Your task to perform on an android device: toggle wifi Image 0: 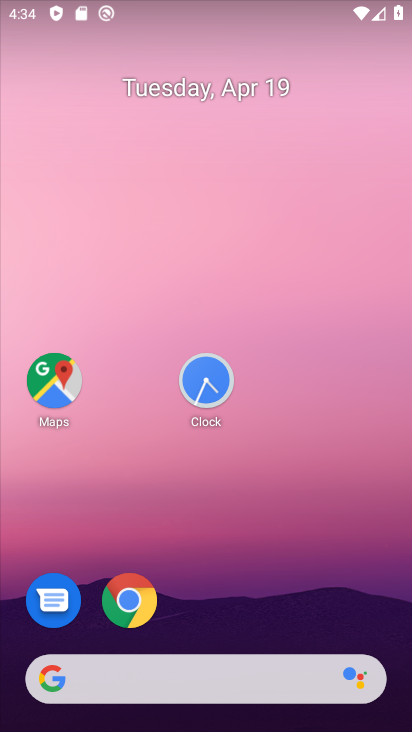
Step 0: drag from (238, 453) to (128, 19)
Your task to perform on an android device: toggle wifi Image 1: 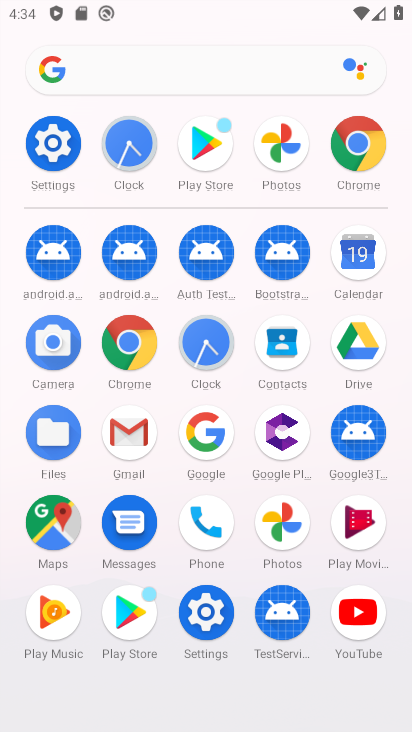
Step 1: click (53, 150)
Your task to perform on an android device: toggle wifi Image 2: 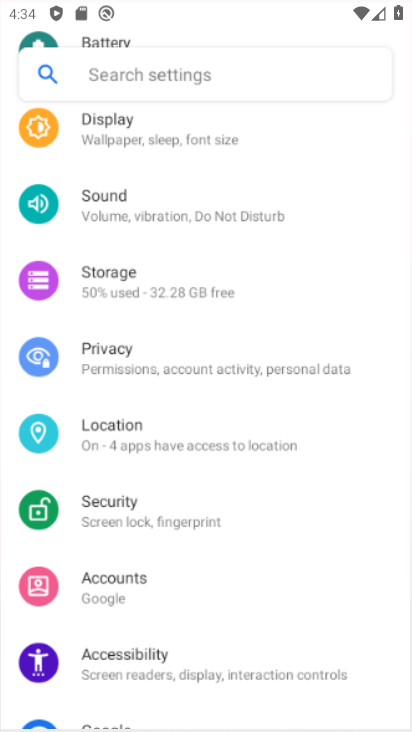
Step 2: click (54, 149)
Your task to perform on an android device: toggle wifi Image 3: 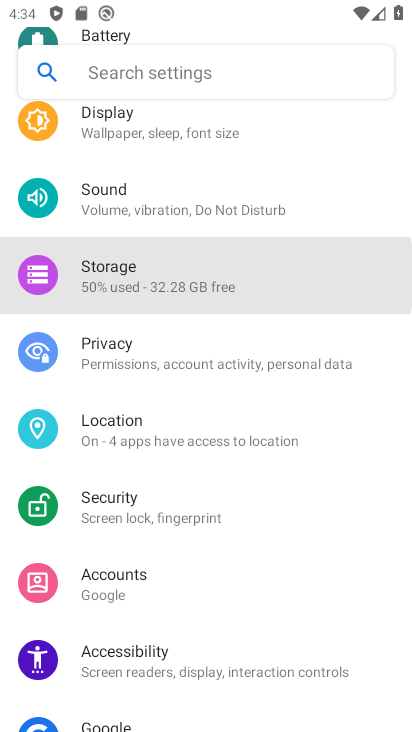
Step 3: click (54, 149)
Your task to perform on an android device: toggle wifi Image 4: 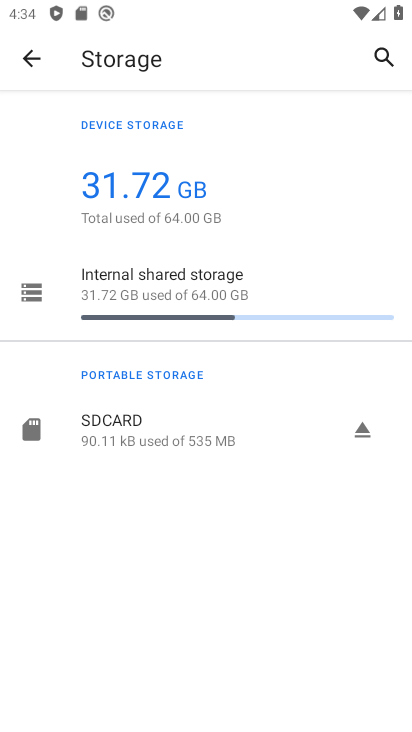
Step 4: click (33, 53)
Your task to perform on an android device: toggle wifi Image 5: 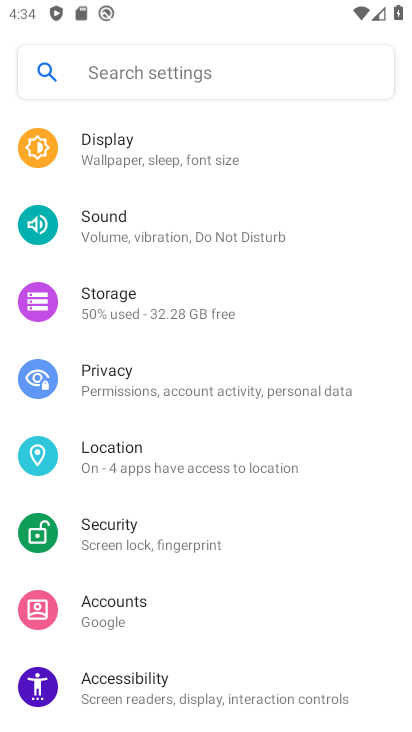
Step 5: drag from (144, 165) to (127, 406)
Your task to perform on an android device: toggle wifi Image 6: 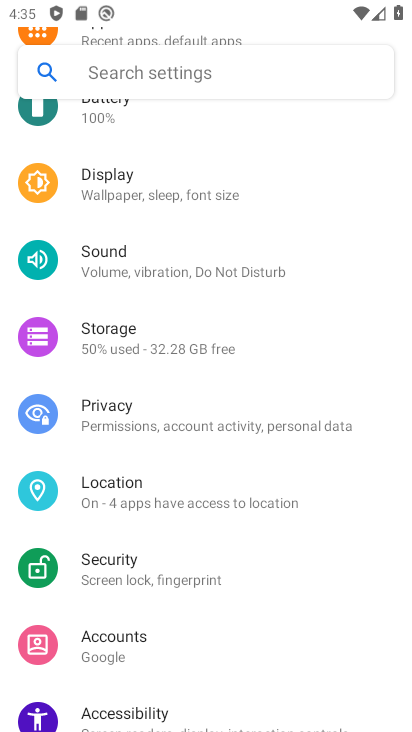
Step 6: drag from (130, 226) to (138, 435)
Your task to perform on an android device: toggle wifi Image 7: 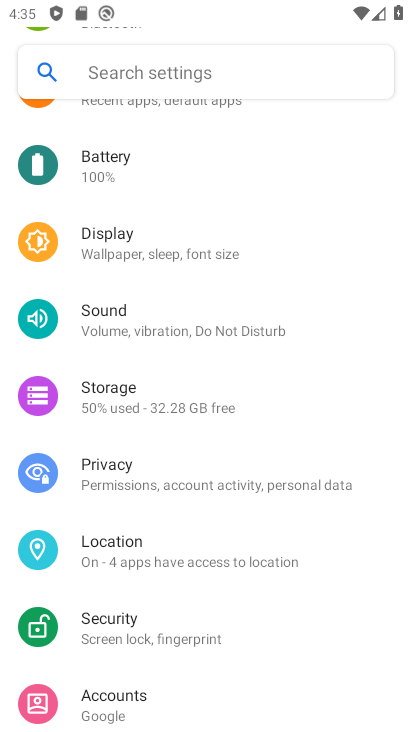
Step 7: drag from (179, 373) to (171, 424)
Your task to perform on an android device: toggle wifi Image 8: 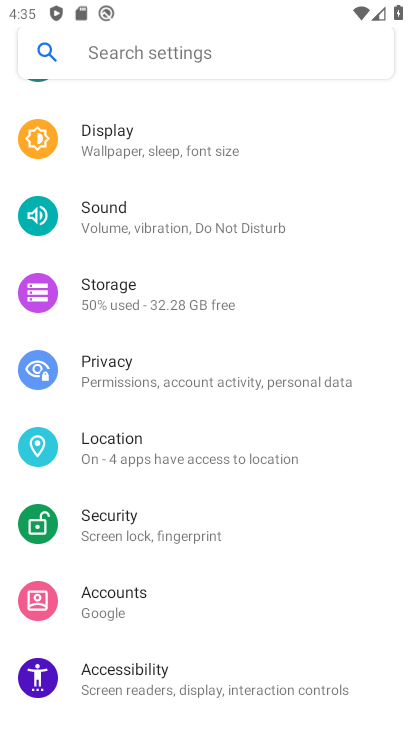
Step 8: drag from (97, 155) to (161, 373)
Your task to perform on an android device: toggle wifi Image 9: 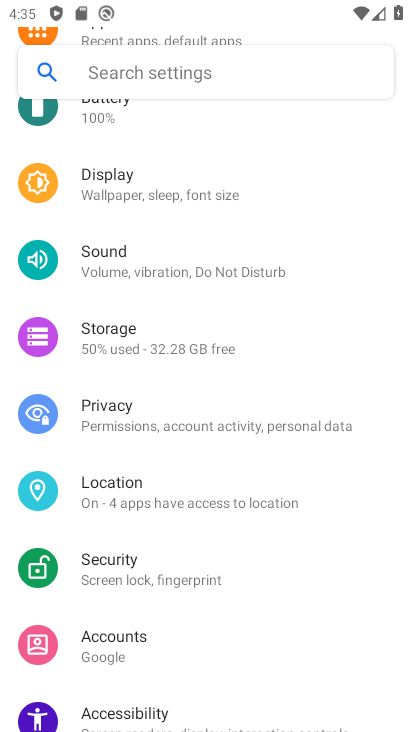
Step 9: drag from (147, 181) to (238, 538)
Your task to perform on an android device: toggle wifi Image 10: 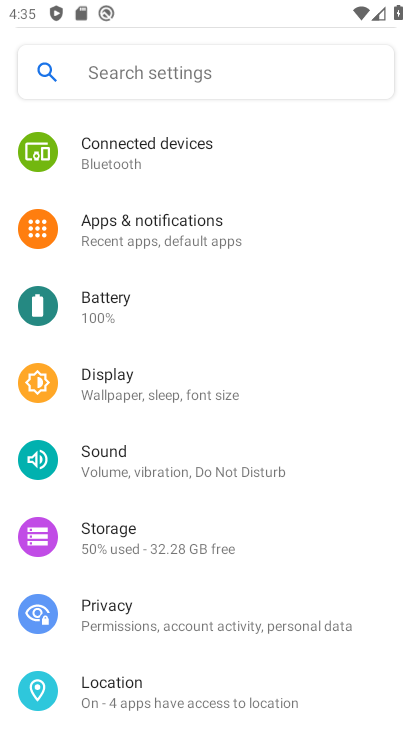
Step 10: drag from (191, 216) to (248, 407)
Your task to perform on an android device: toggle wifi Image 11: 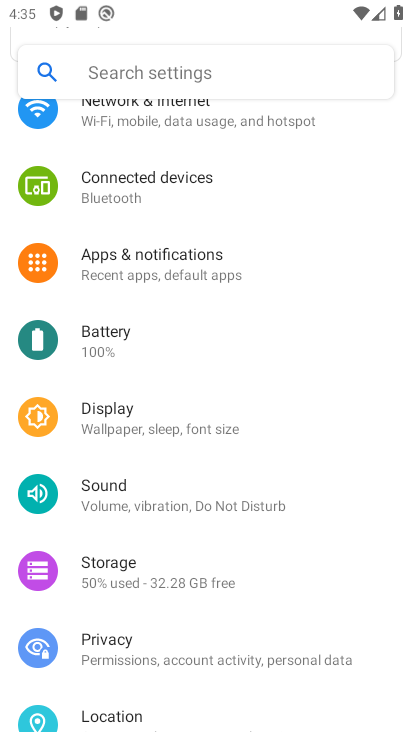
Step 11: click (240, 385)
Your task to perform on an android device: toggle wifi Image 12: 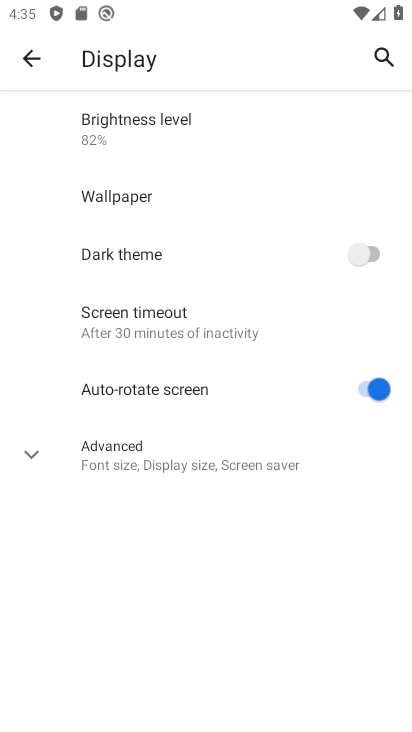
Step 12: click (22, 58)
Your task to perform on an android device: toggle wifi Image 13: 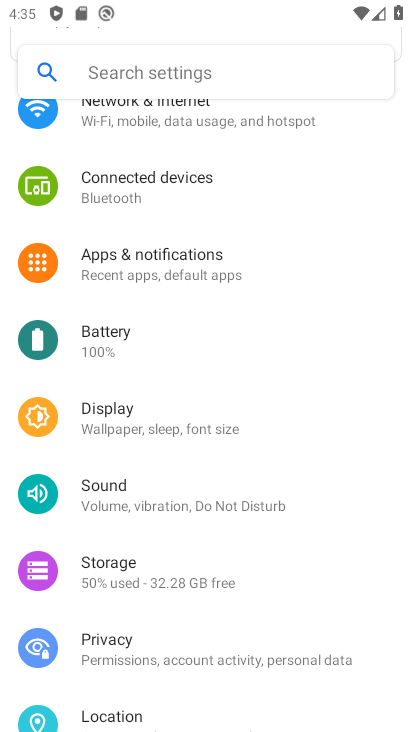
Step 13: drag from (139, 225) to (207, 617)
Your task to perform on an android device: toggle wifi Image 14: 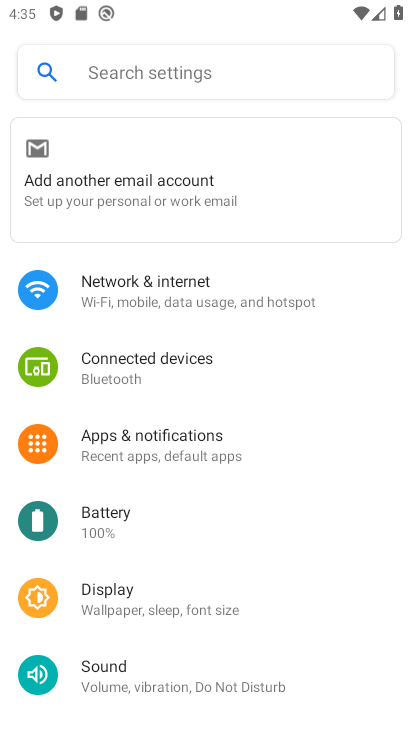
Step 14: click (162, 296)
Your task to perform on an android device: toggle wifi Image 15: 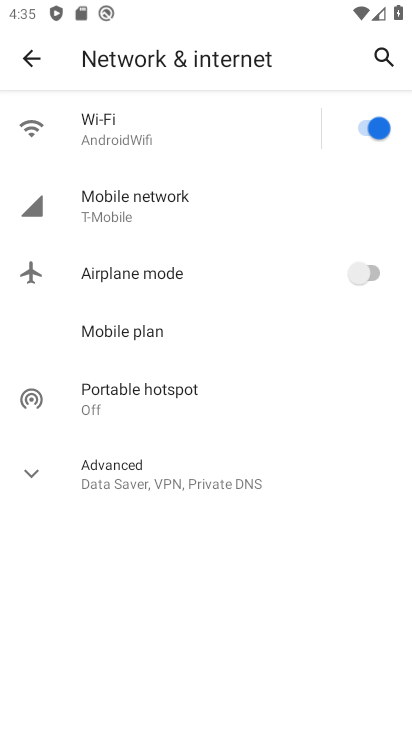
Step 15: click (371, 127)
Your task to perform on an android device: toggle wifi Image 16: 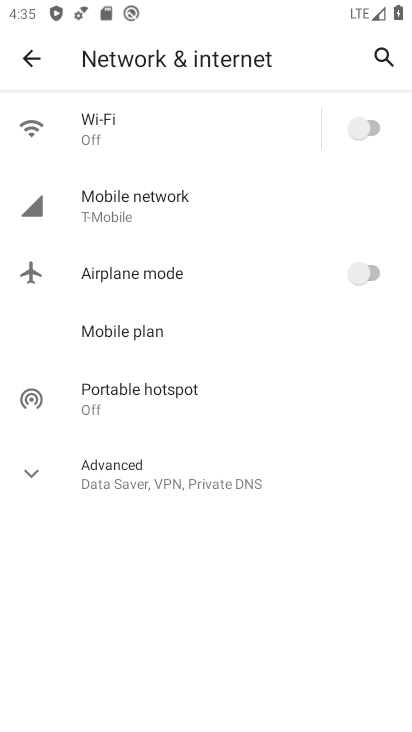
Step 16: task complete